Your task to perform on an android device: Add "logitech g pro" to the cart on newegg, then select checkout. Image 0: 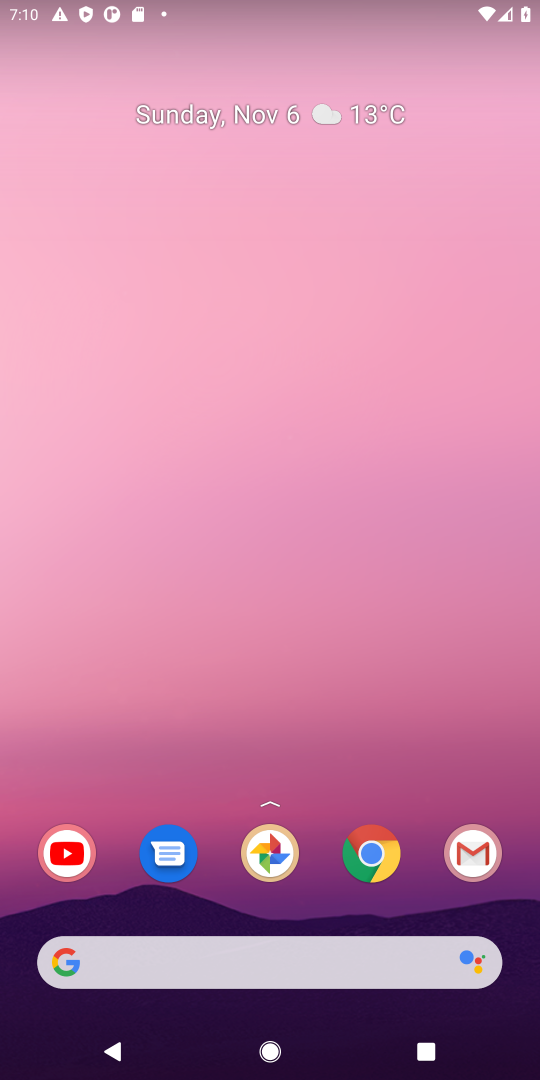
Step 0: click (363, 850)
Your task to perform on an android device: Add "logitech g pro" to the cart on newegg, then select checkout. Image 1: 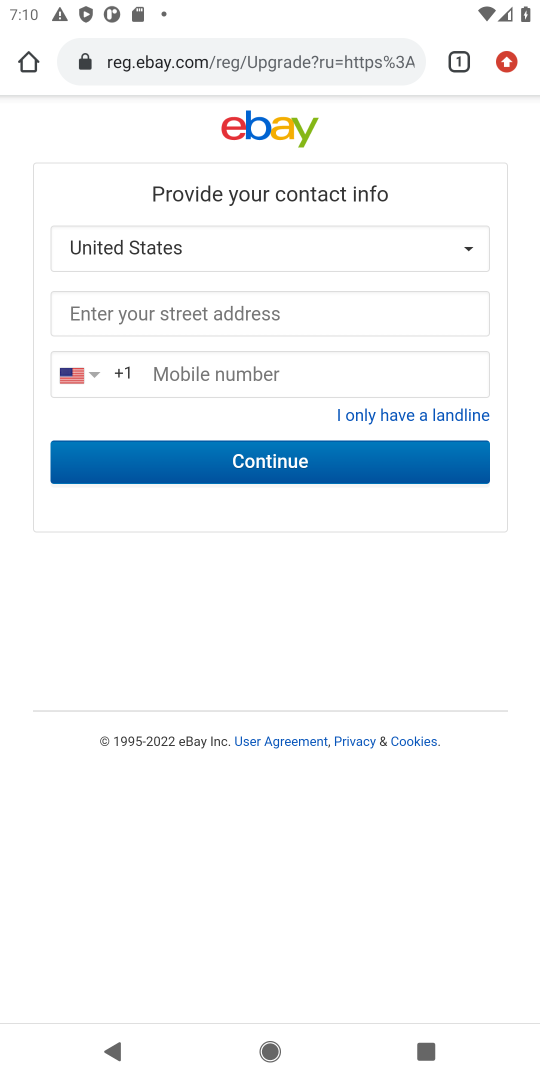
Step 1: click (293, 39)
Your task to perform on an android device: Add "logitech g pro" to the cart on newegg, then select checkout. Image 2: 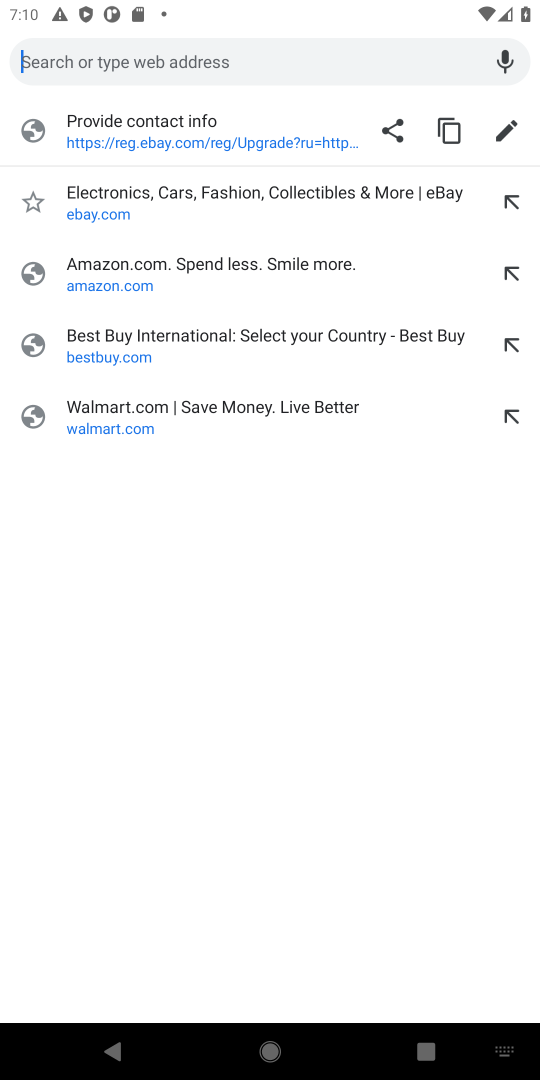
Step 2: type "newegg"
Your task to perform on an android device: Add "logitech g pro" to the cart on newegg, then select checkout. Image 3: 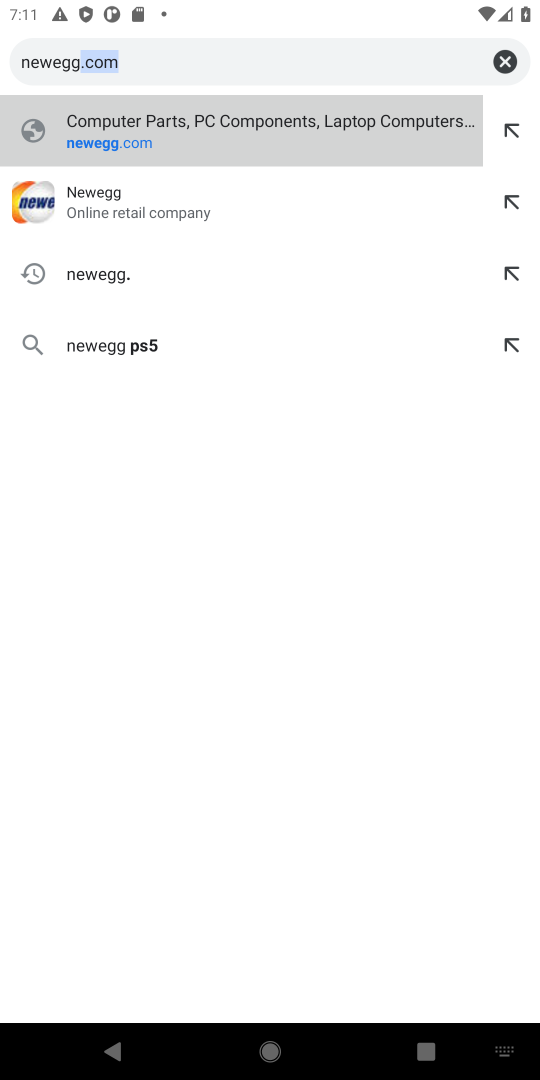
Step 3: click (98, 120)
Your task to perform on an android device: Add "logitech g pro" to the cart on newegg, then select checkout. Image 4: 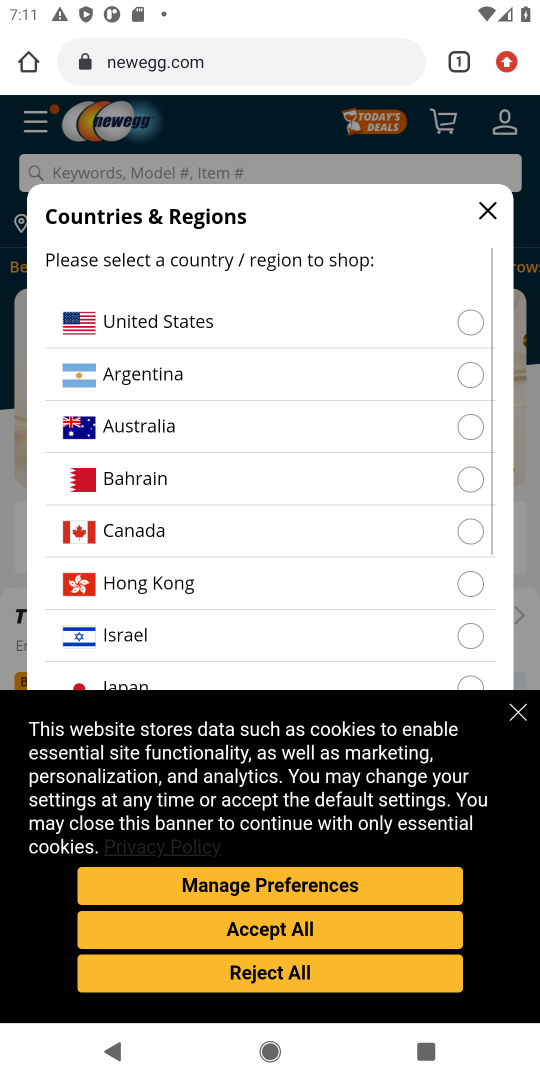
Step 4: click (267, 926)
Your task to perform on an android device: Add "logitech g pro" to the cart on newegg, then select checkout. Image 5: 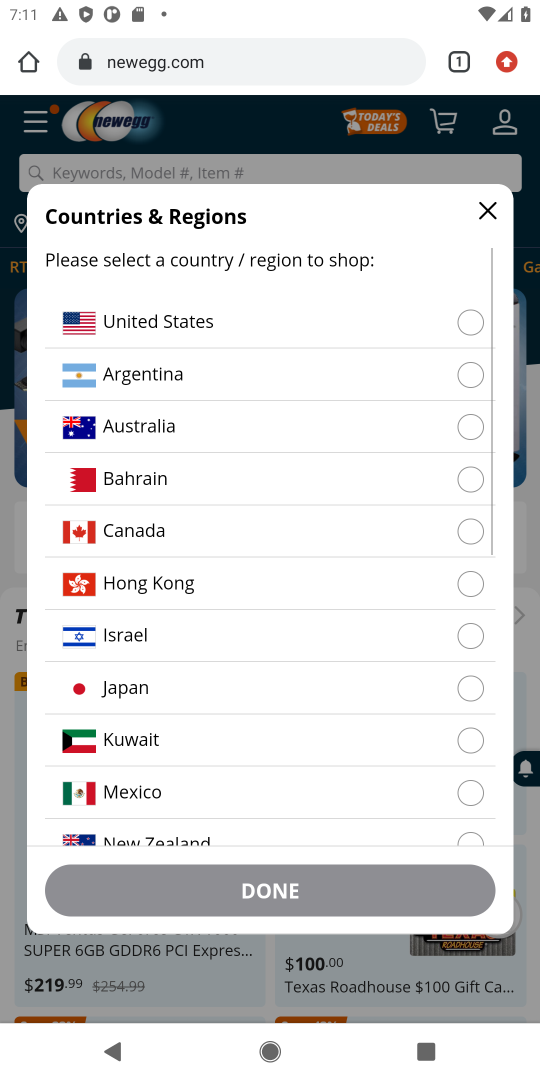
Step 5: click (476, 315)
Your task to perform on an android device: Add "logitech g pro" to the cart on newegg, then select checkout. Image 6: 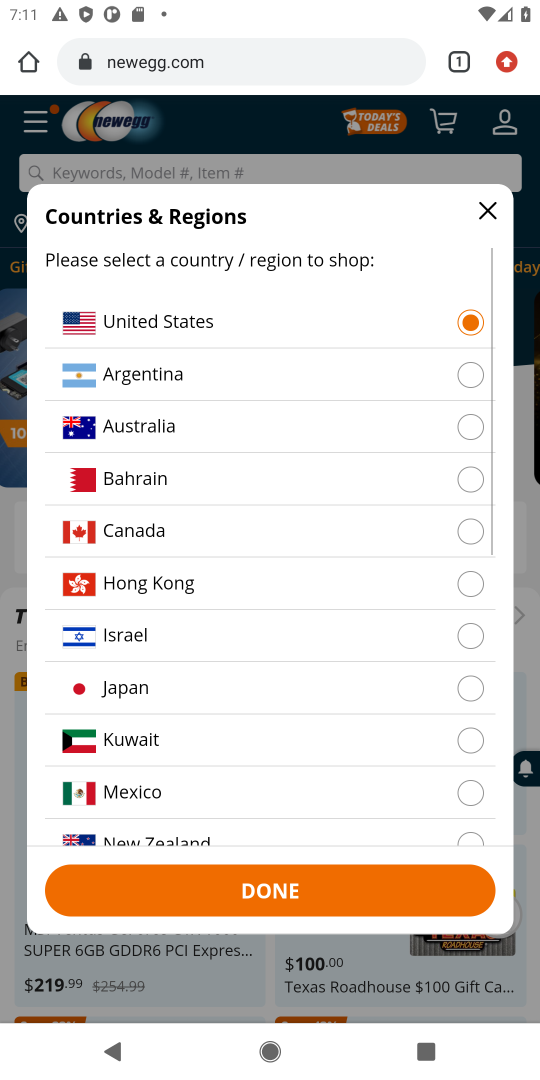
Step 6: click (259, 893)
Your task to perform on an android device: Add "logitech g pro" to the cart on newegg, then select checkout. Image 7: 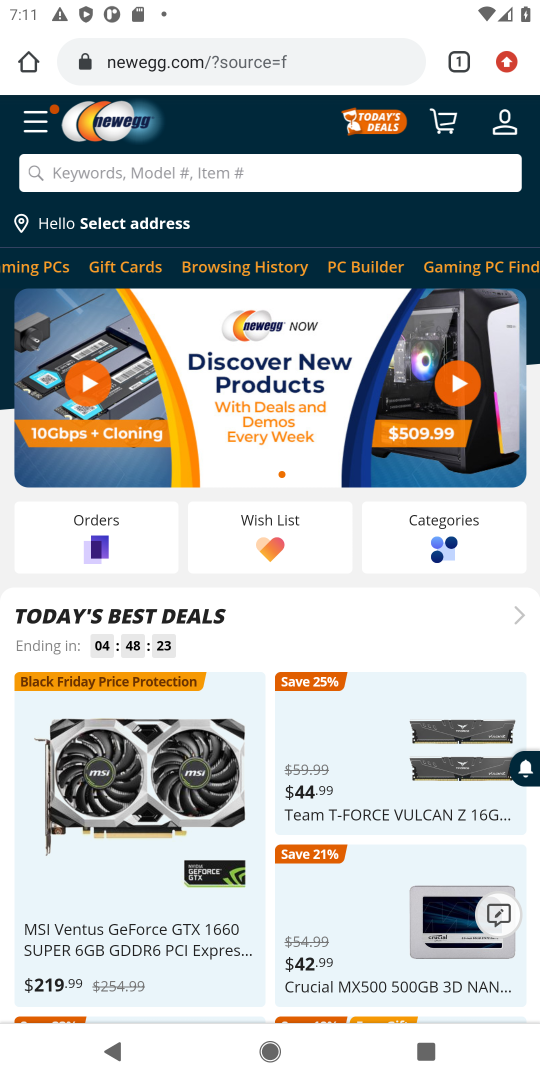
Step 7: click (184, 166)
Your task to perform on an android device: Add "logitech g pro" to the cart on newegg, then select checkout. Image 8: 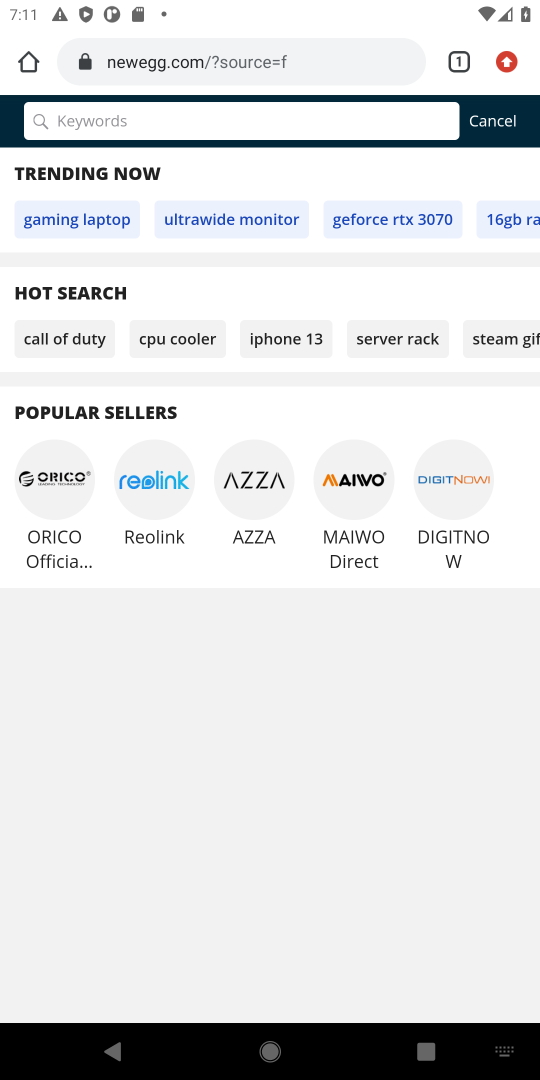
Step 8: type "logitech g pro"
Your task to perform on an android device: Add "logitech g pro" to the cart on newegg, then select checkout. Image 9: 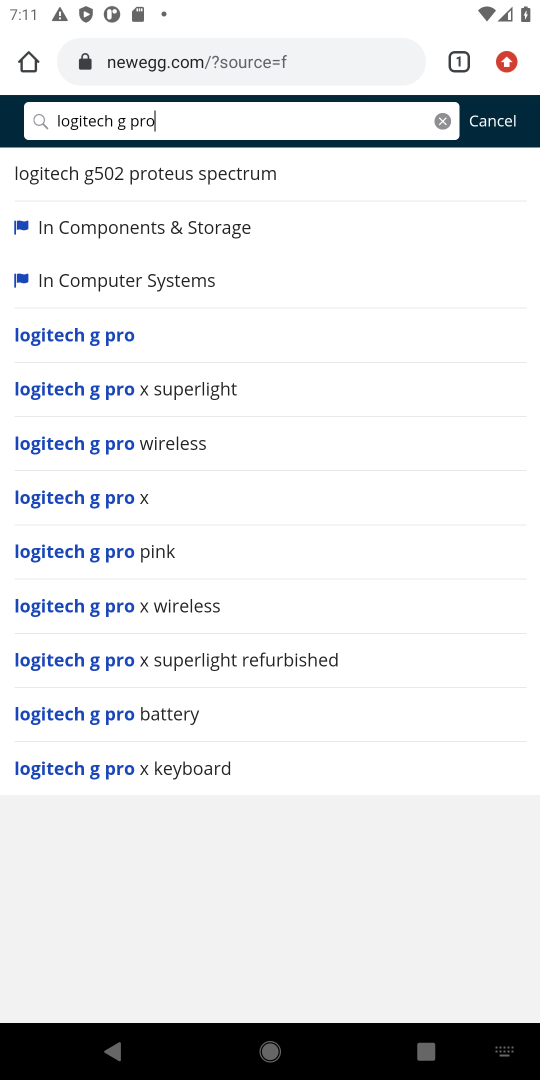
Step 9: click (32, 332)
Your task to perform on an android device: Add "logitech g pro" to the cart on newegg, then select checkout. Image 10: 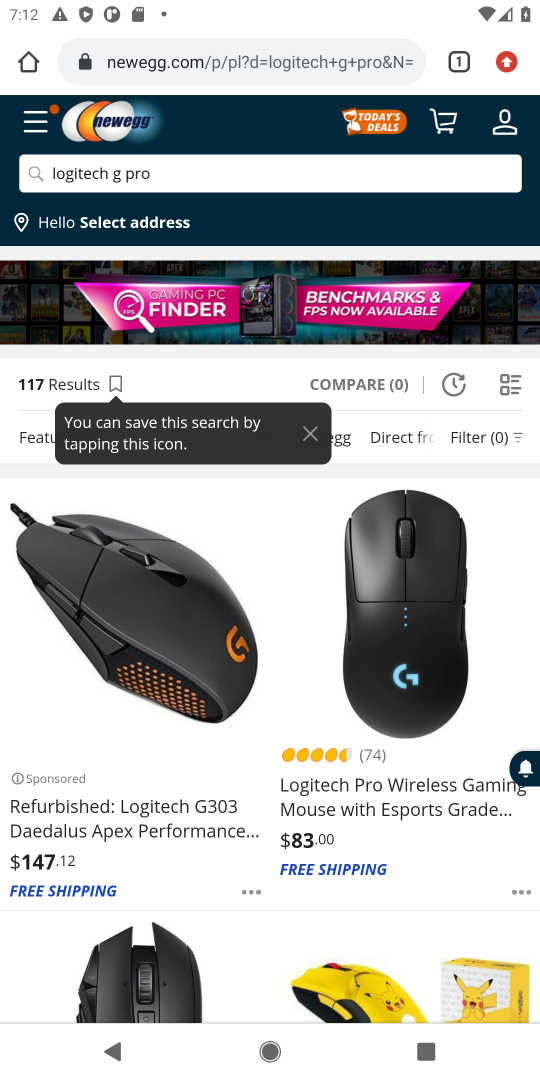
Step 10: drag from (253, 895) to (239, 274)
Your task to perform on an android device: Add "logitech g pro" to the cart on newegg, then select checkout. Image 11: 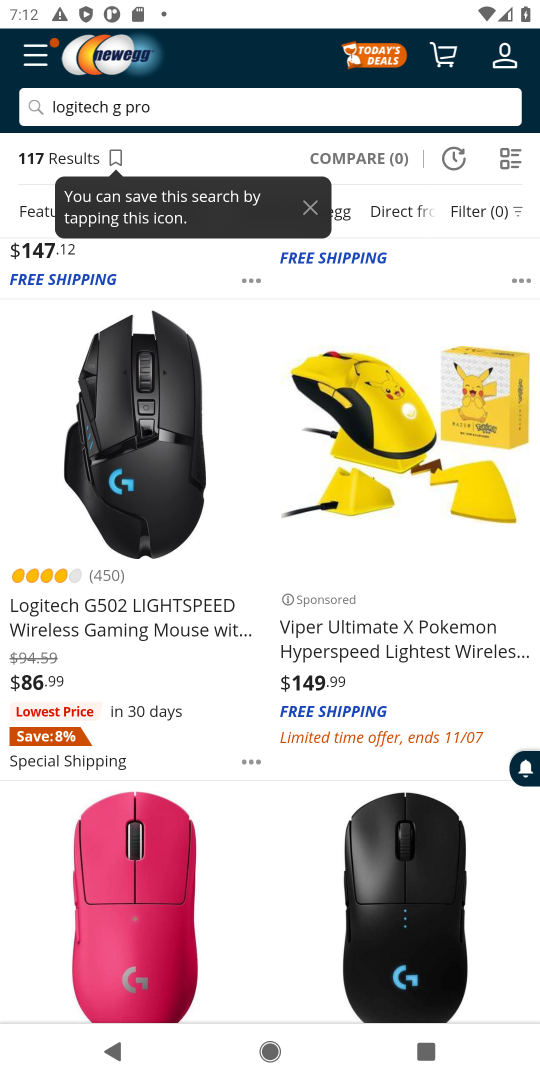
Step 11: drag from (272, 908) to (255, 246)
Your task to perform on an android device: Add "logitech g pro" to the cart on newegg, then select checkout. Image 12: 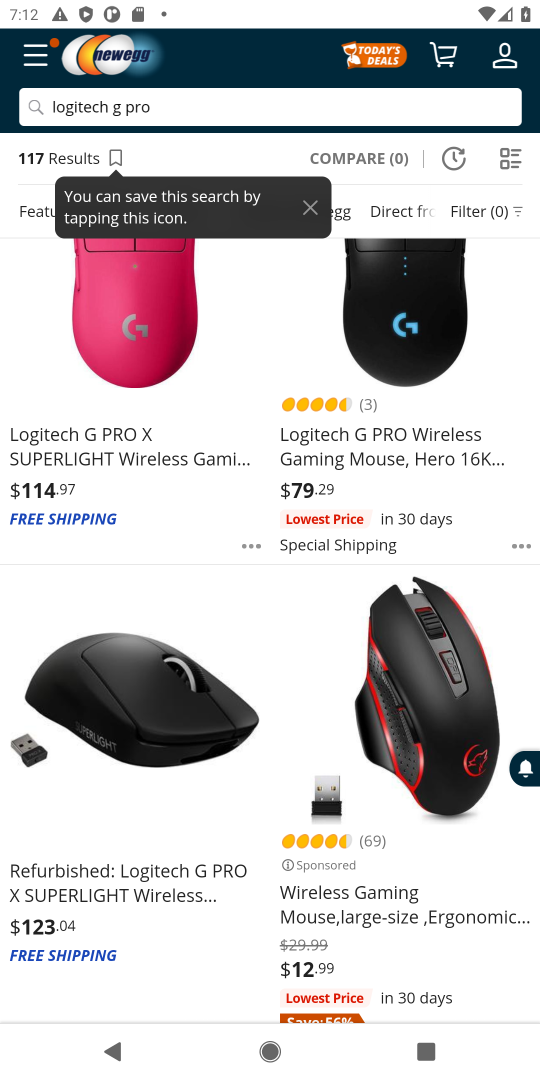
Step 12: drag from (226, 1004) to (278, 1060)
Your task to perform on an android device: Add "logitech g pro" to the cart on newegg, then select checkout. Image 13: 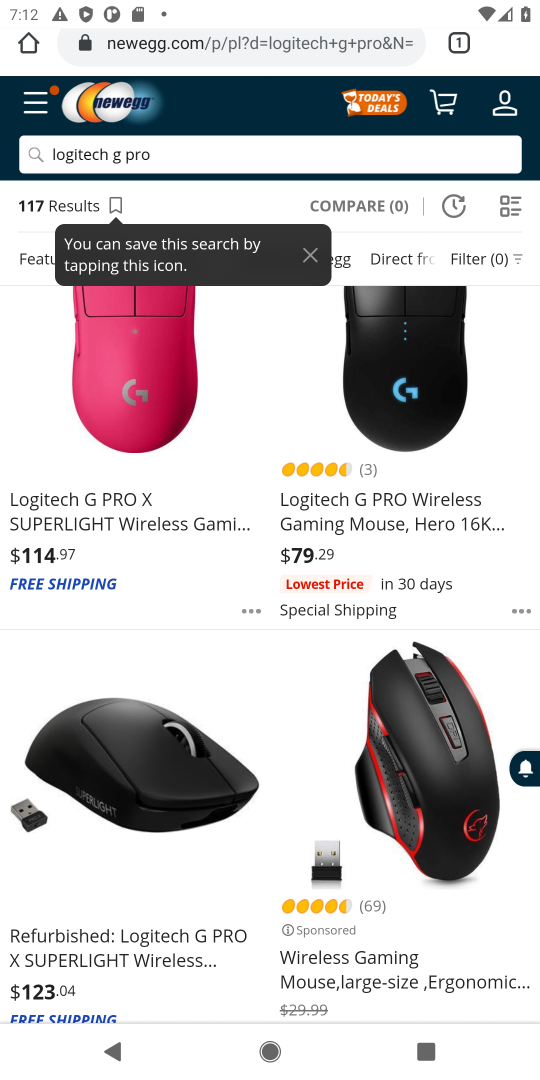
Step 13: drag from (299, 544) to (259, 785)
Your task to perform on an android device: Add "logitech g pro" to the cart on newegg, then select checkout. Image 14: 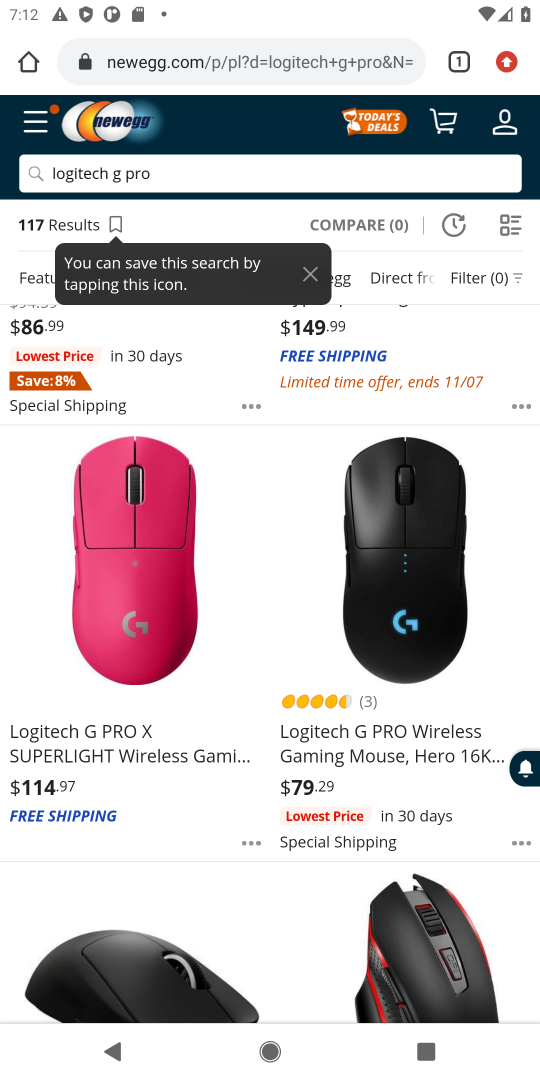
Step 14: click (381, 738)
Your task to perform on an android device: Add "logitech g pro" to the cart on newegg, then select checkout. Image 15: 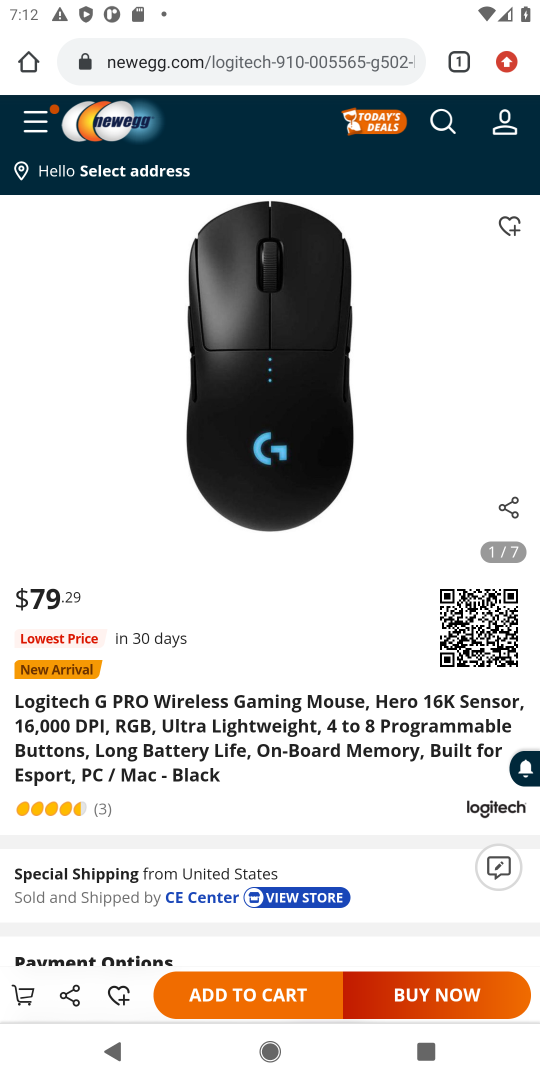
Step 15: click (248, 997)
Your task to perform on an android device: Add "logitech g pro" to the cart on newegg, then select checkout. Image 16: 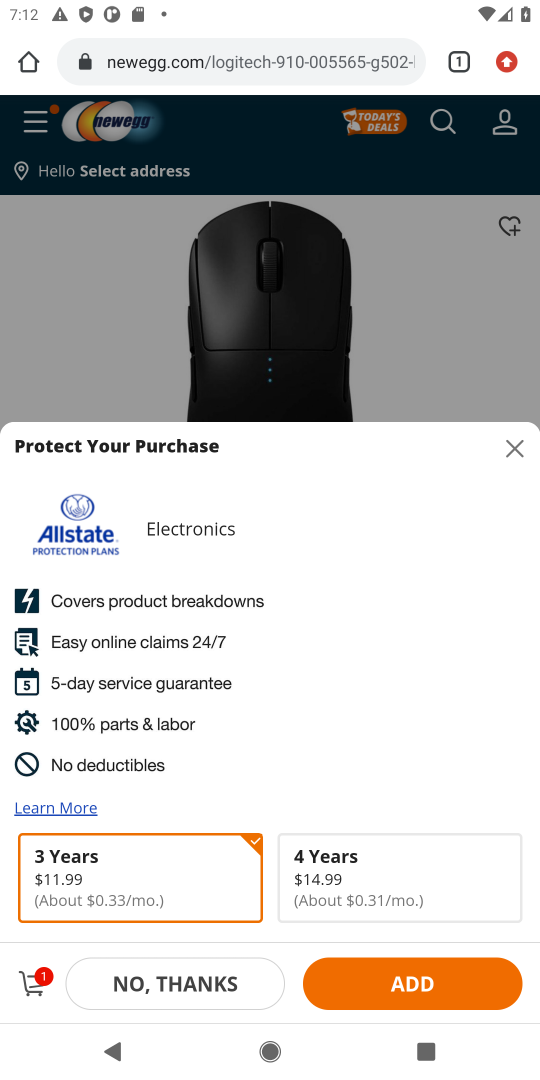
Step 16: click (156, 994)
Your task to perform on an android device: Add "logitech g pro" to the cart on newegg, then select checkout. Image 17: 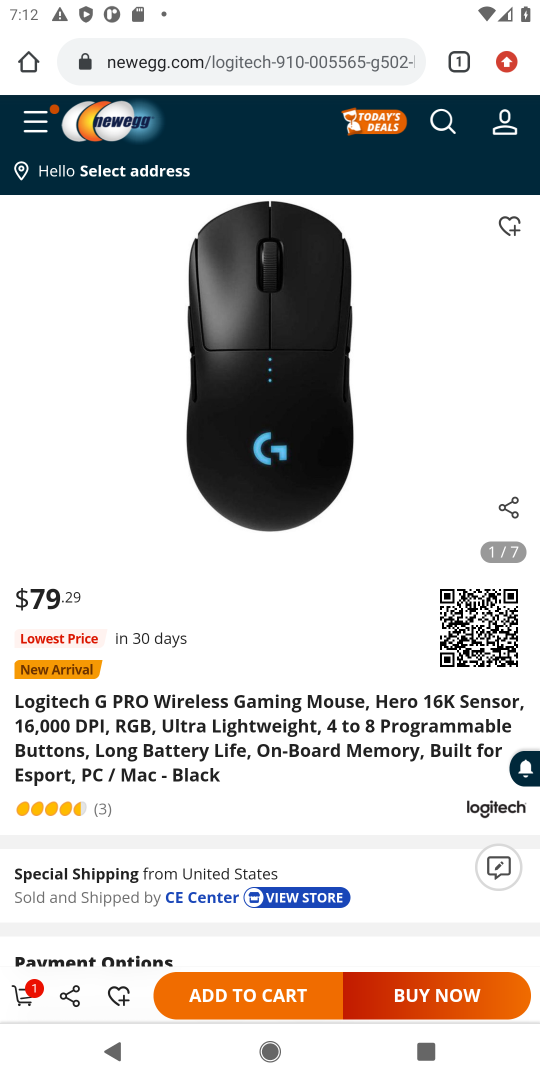
Step 17: click (22, 995)
Your task to perform on an android device: Add "logitech g pro" to the cart on newegg, then select checkout. Image 18: 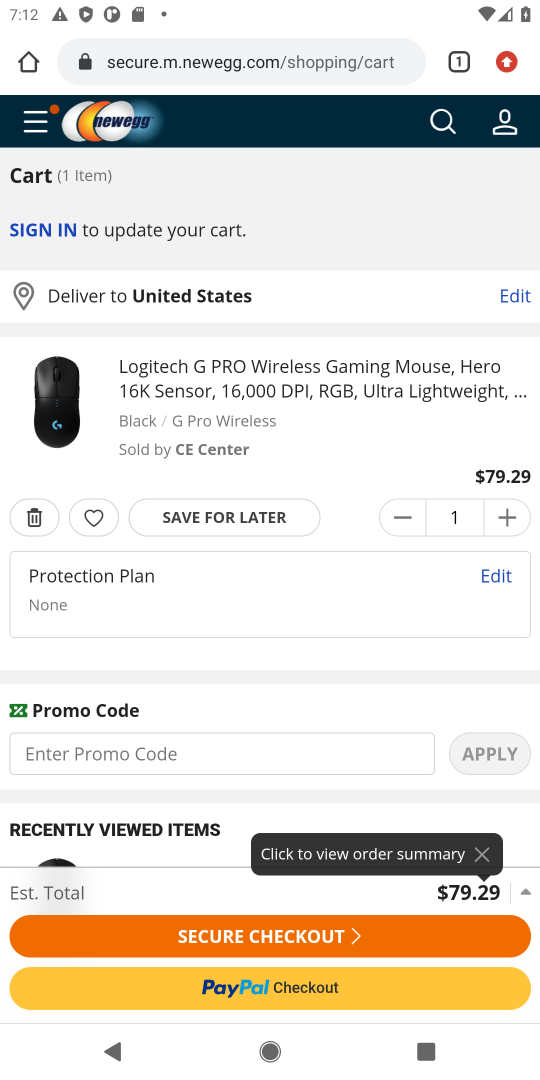
Step 18: click (279, 871)
Your task to perform on an android device: Add "logitech g pro" to the cart on newegg, then select checkout. Image 19: 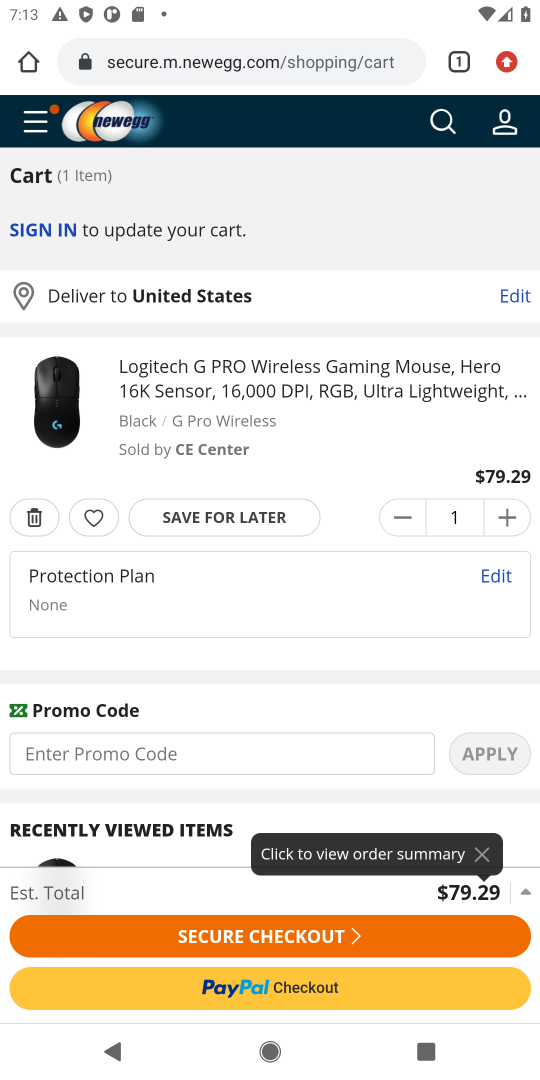
Step 19: click (278, 940)
Your task to perform on an android device: Add "logitech g pro" to the cart on newegg, then select checkout. Image 20: 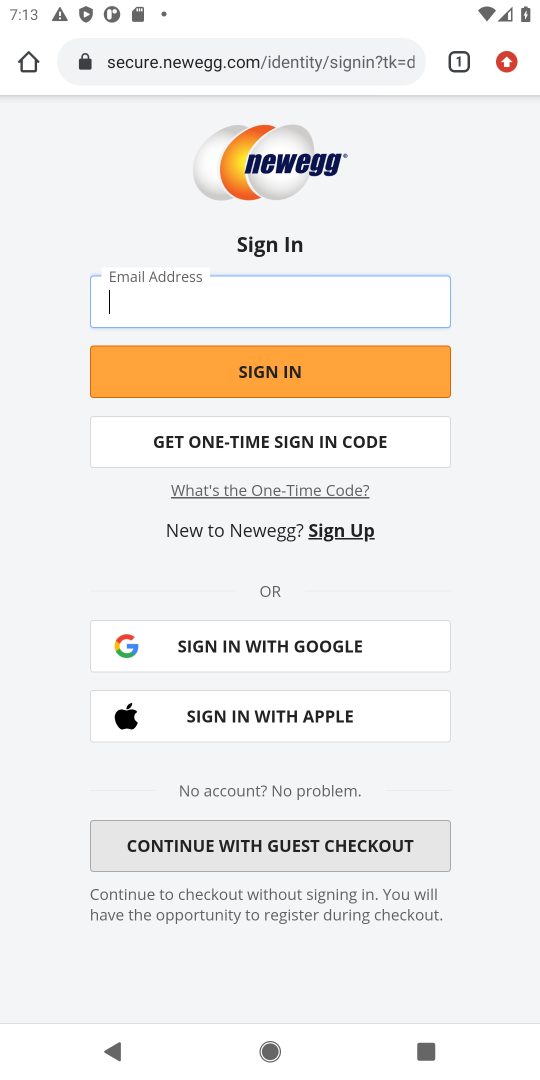
Step 20: task complete